Your task to perform on an android device: open chrome privacy settings Image 0: 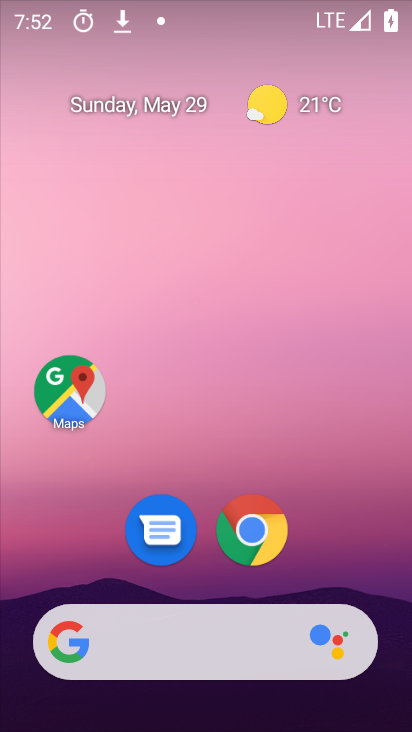
Step 0: press home button
Your task to perform on an android device: open chrome privacy settings Image 1: 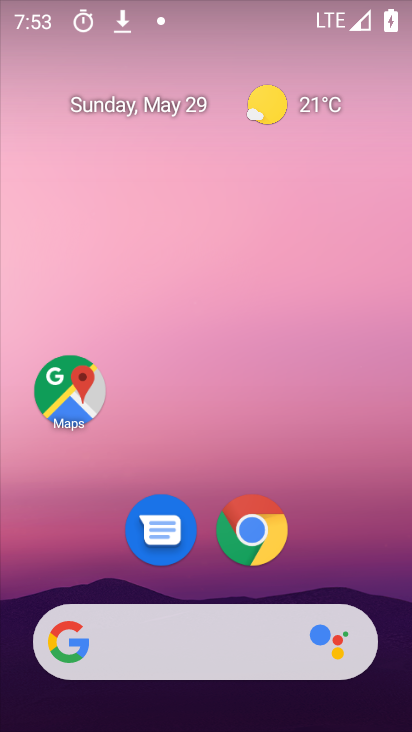
Step 1: drag from (315, 593) to (408, 124)
Your task to perform on an android device: open chrome privacy settings Image 2: 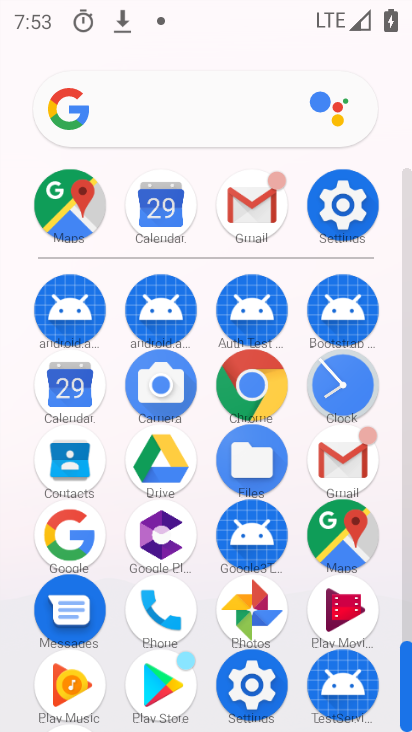
Step 2: click (349, 189)
Your task to perform on an android device: open chrome privacy settings Image 3: 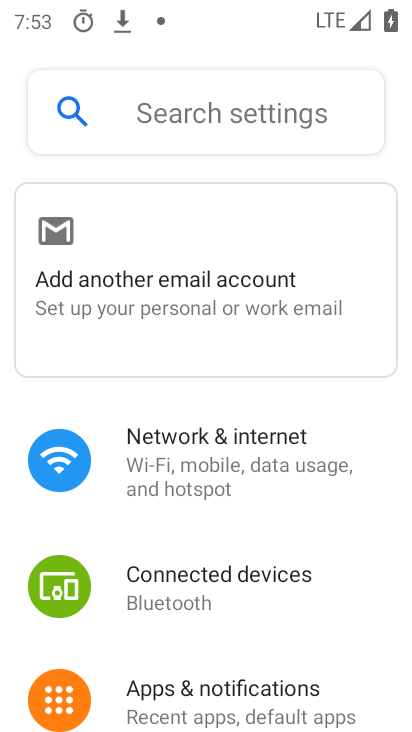
Step 3: click (189, 115)
Your task to perform on an android device: open chrome privacy settings Image 4: 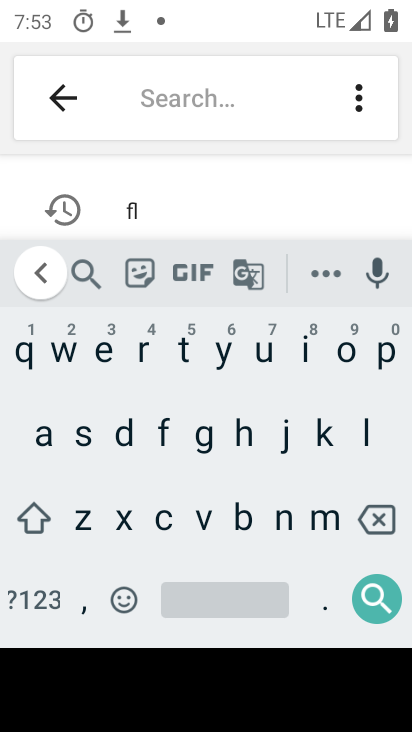
Step 4: click (377, 363)
Your task to perform on an android device: open chrome privacy settings Image 5: 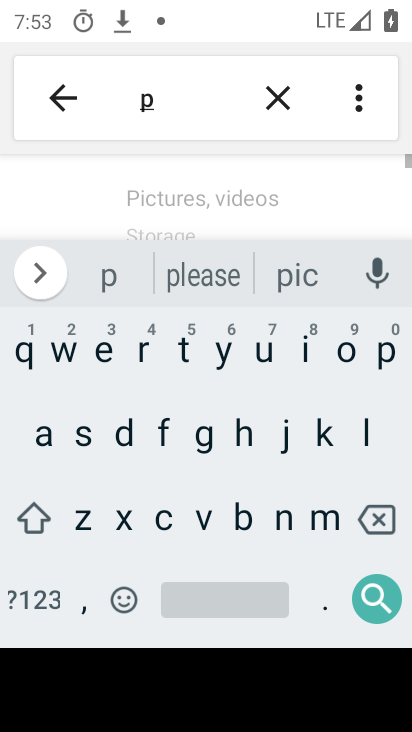
Step 5: click (134, 352)
Your task to perform on an android device: open chrome privacy settings Image 6: 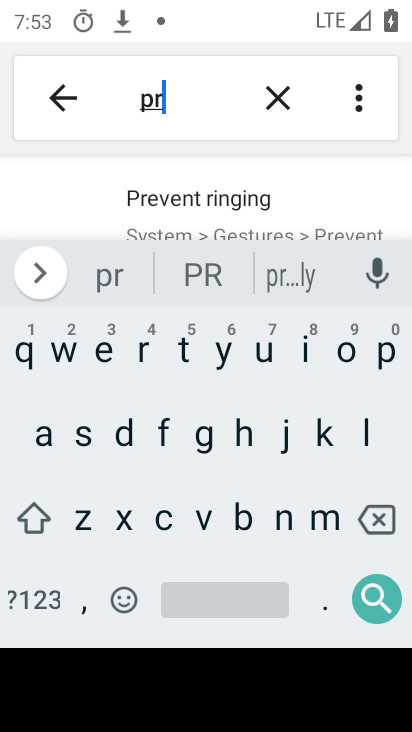
Step 6: click (307, 355)
Your task to perform on an android device: open chrome privacy settings Image 7: 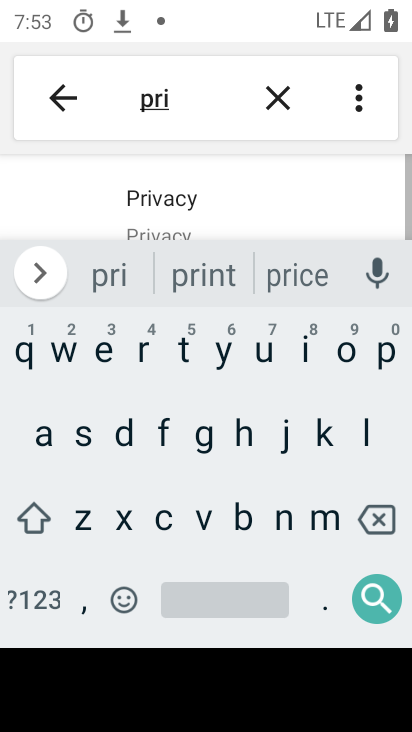
Step 7: click (206, 201)
Your task to perform on an android device: open chrome privacy settings Image 8: 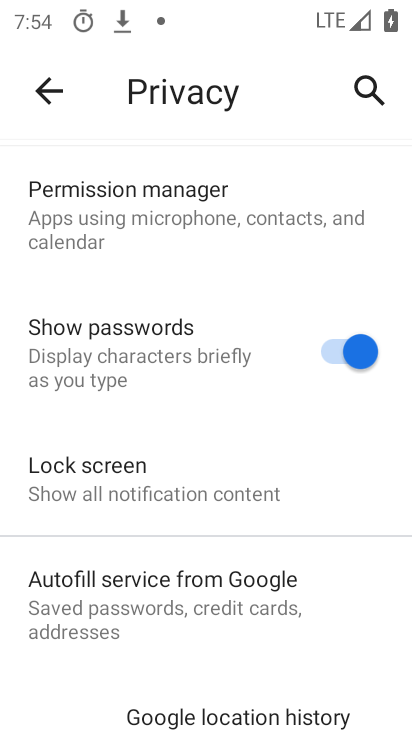
Step 8: task complete